Your task to perform on an android device: allow cookies in the chrome app Image 0: 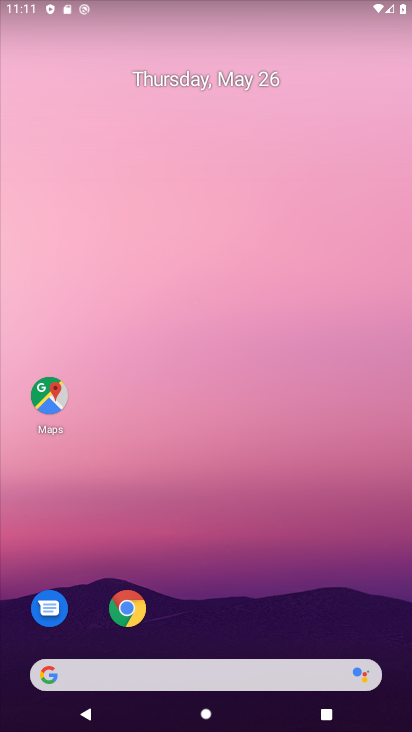
Step 0: click (134, 611)
Your task to perform on an android device: allow cookies in the chrome app Image 1: 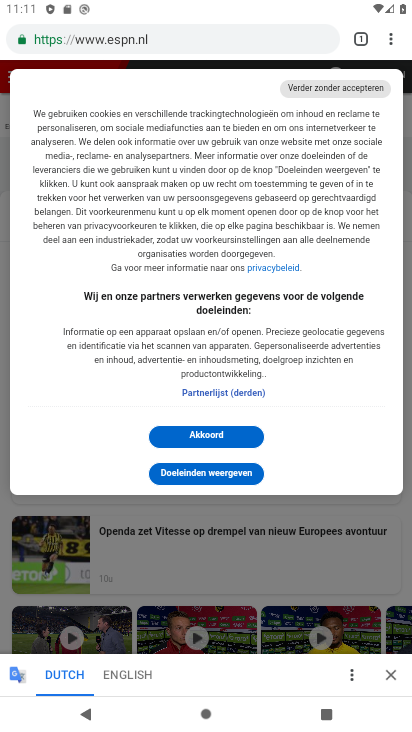
Step 1: drag from (386, 41) to (270, 518)
Your task to perform on an android device: allow cookies in the chrome app Image 2: 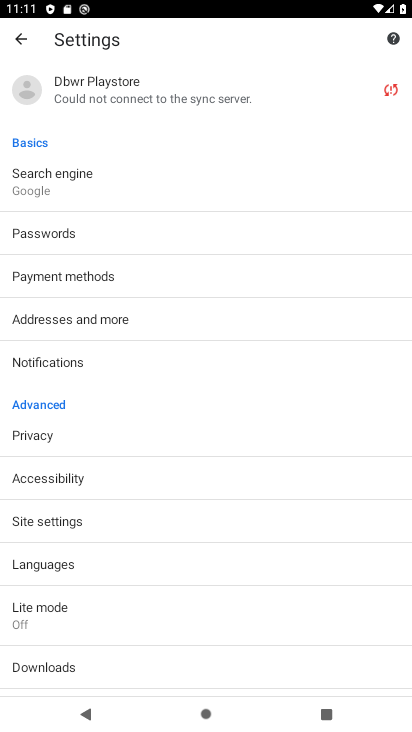
Step 2: click (44, 513)
Your task to perform on an android device: allow cookies in the chrome app Image 3: 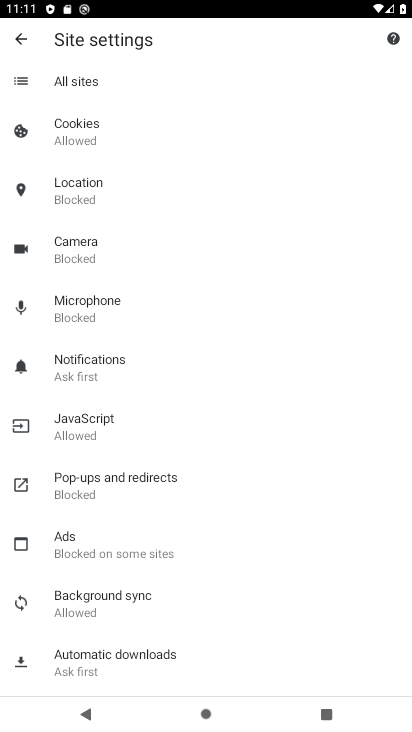
Step 3: click (67, 129)
Your task to perform on an android device: allow cookies in the chrome app Image 4: 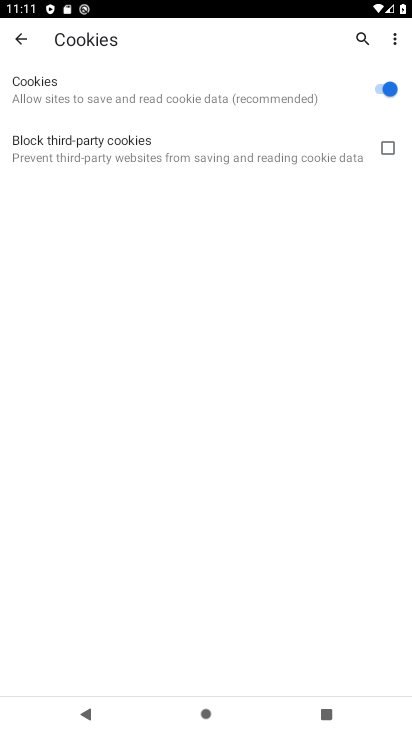
Step 4: task complete